Your task to perform on an android device: Do I have any events today? Image 0: 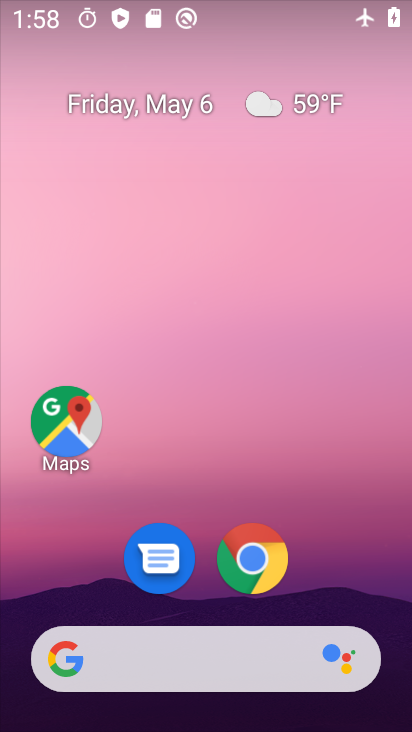
Step 0: drag from (238, 720) to (230, 231)
Your task to perform on an android device: Do I have any events today? Image 1: 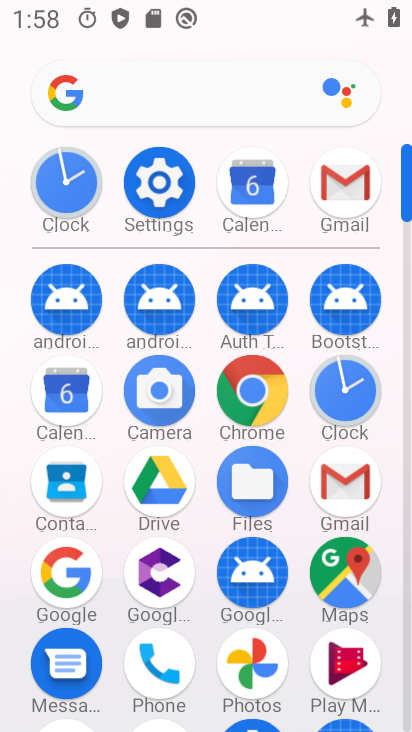
Step 1: click (62, 403)
Your task to perform on an android device: Do I have any events today? Image 2: 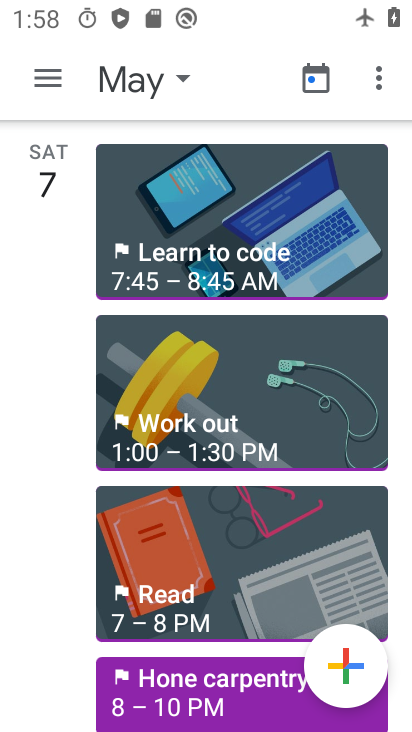
Step 2: click (123, 73)
Your task to perform on an android device: Do I have any events today? Image 3: 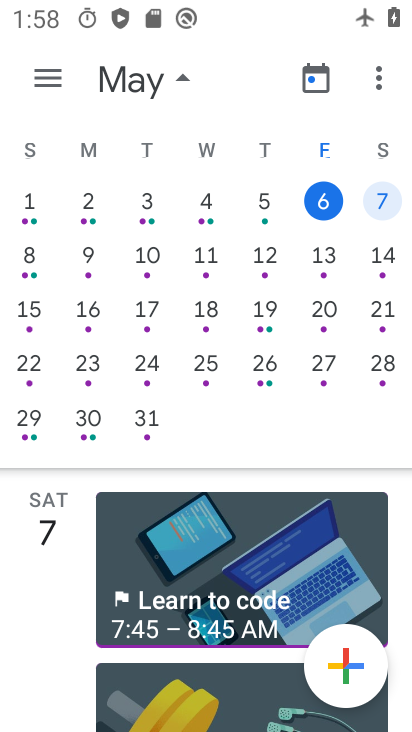
Step 3: click (324, 198)
Your task to perform on an android device: Do I have any events today? Image 4: 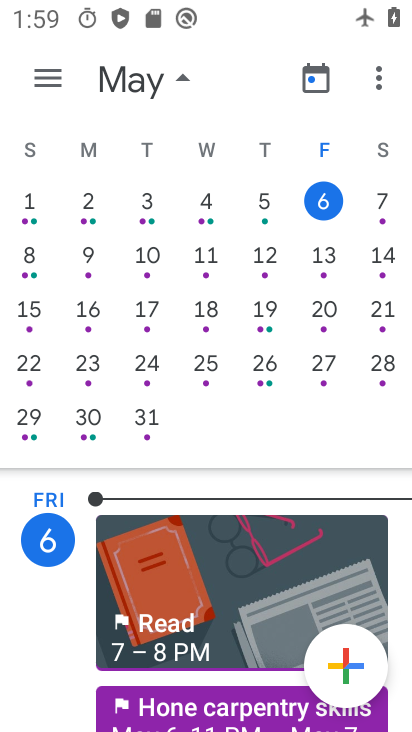
Step 4: click (326, 194)
Your task to perform on an android device: Do I have any events today? Image 5: 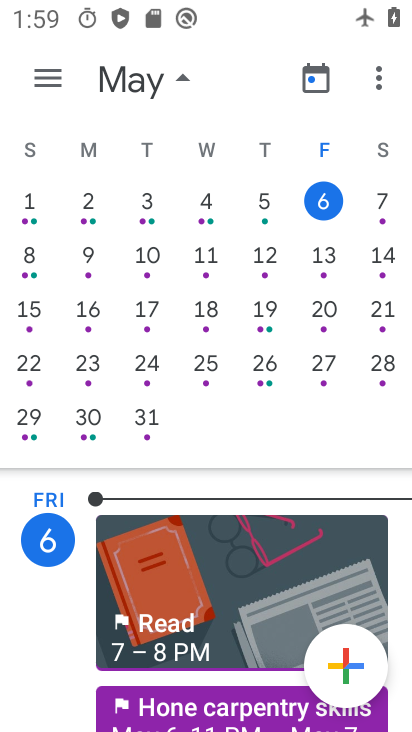
Step 5: task complete